Your task to perform on an android device: Search for seafood restaurants on Google Maps Image 0: 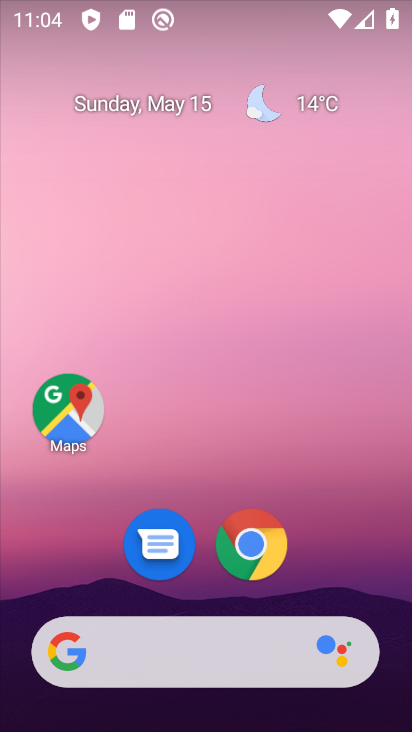
Step 0: click (86, 401)
Your task to perform on an android device: Search for seafood restaurants on Google Maps Image 1: 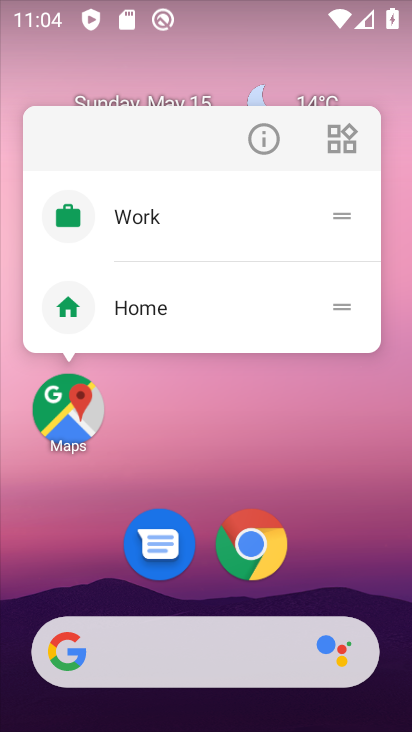
Step 1: click (86, 405)
Your task to perform on an android device: Search for seafood restaurants on Google Maps Image 2: 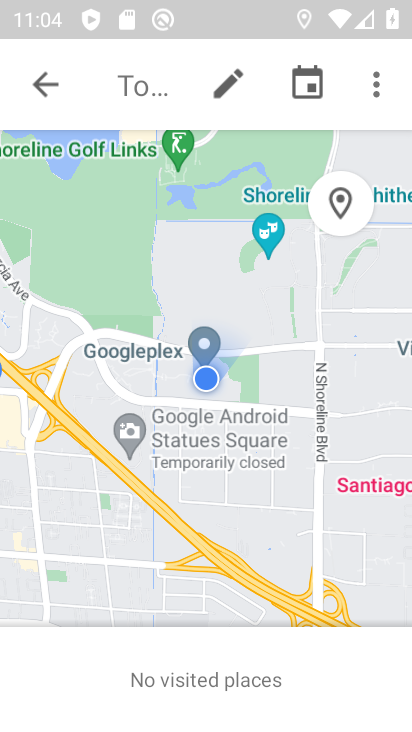
Step 2: click (30, 70)
Your task to perform on an android device: Search for seafood restaurants on Google Maps Image 3: 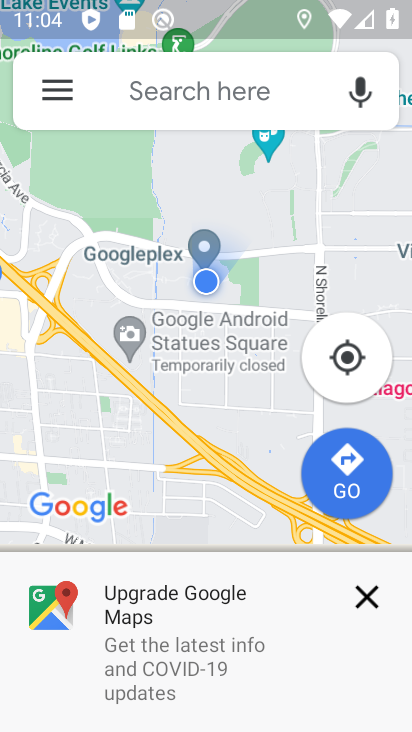
Step 3: click (145, 100)
Your task to perform on an android device: Search for seafood restaurants on Google Maps Image 4: 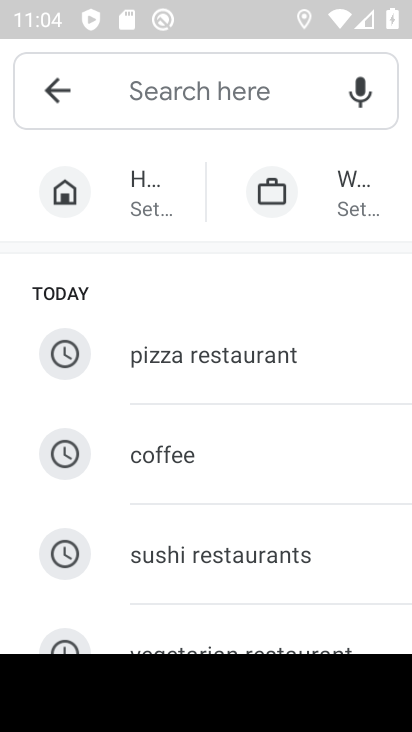
Step 4: type "seafood restaurants"
Your task to perform on an android device: Search for seafood restaurants on Google Maps Image 5: 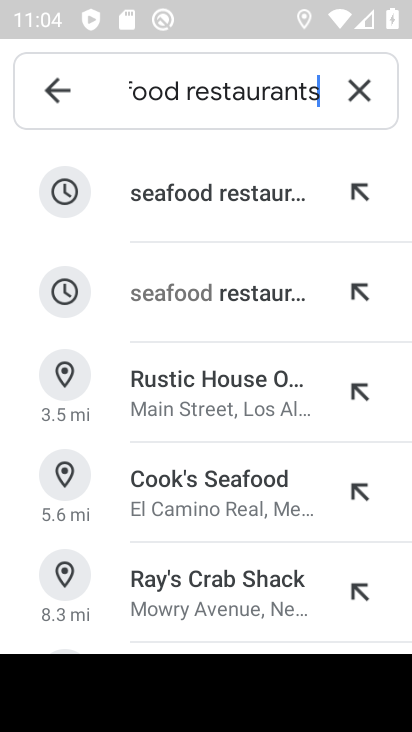
Step 5: click (243, 192)
Your task to perform on an android device: Search for seafood restaurants on Google Maps Image 6: 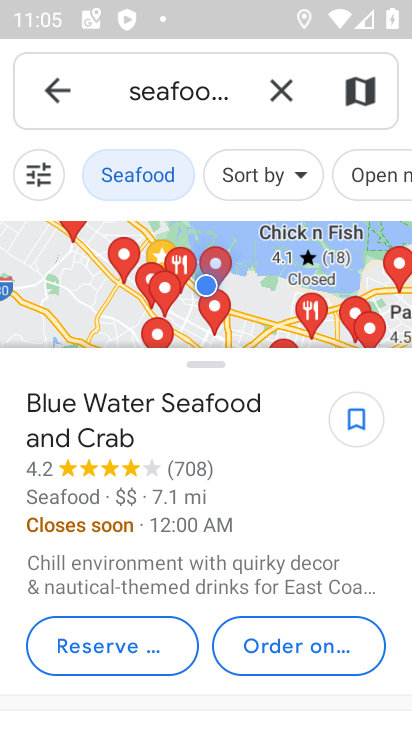
Step 6: task complete